Your task to perform on an android device: turn off sleep mode Image 0: 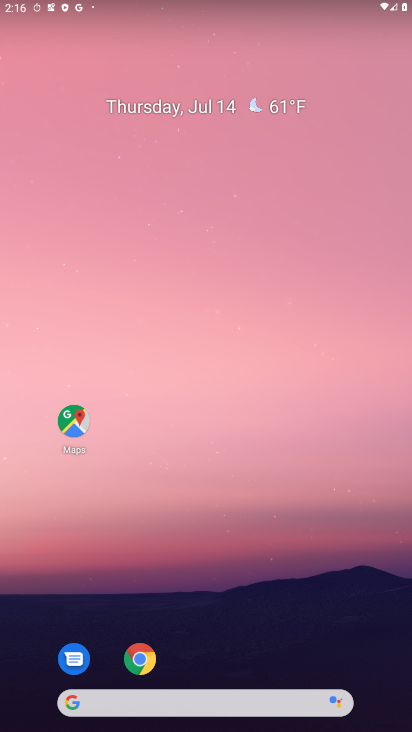
Step 0: drag from (209, 663) to (221, 129)
Your task to perform on an android device: turn off sleep mode Image 1: 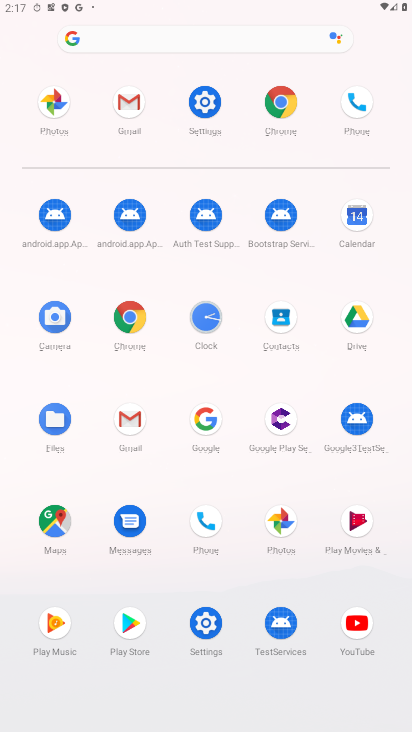
Step 1: click (203, 628)
Your task to perform on an android device: turn off sleep mode Image 2: 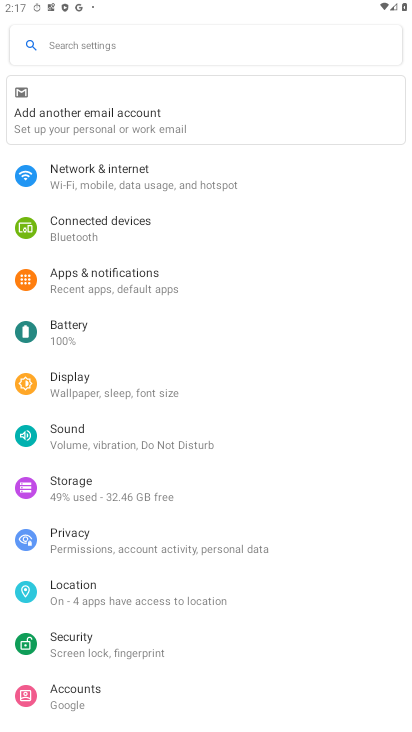
Step 2: click (89, 379)
Your task to perform on an android device: turn off sleep mode Image 3: 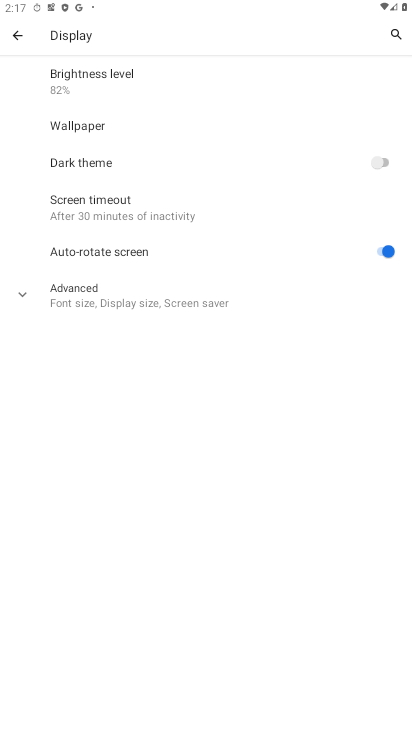
Step 3: task complete